Your task to perform on an android device: turn on priority inbox in the gmail app Image 0: 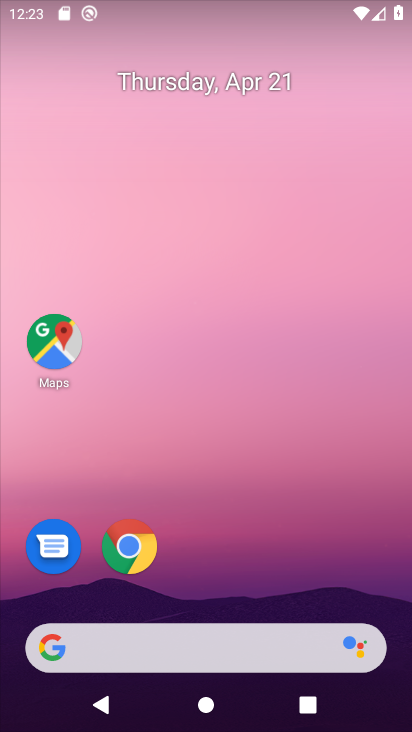
Step 0: drag from (195, 572) to (237, 184)
Your task to perform on an android device: turn on priority inbox in the gmail app Image 1: 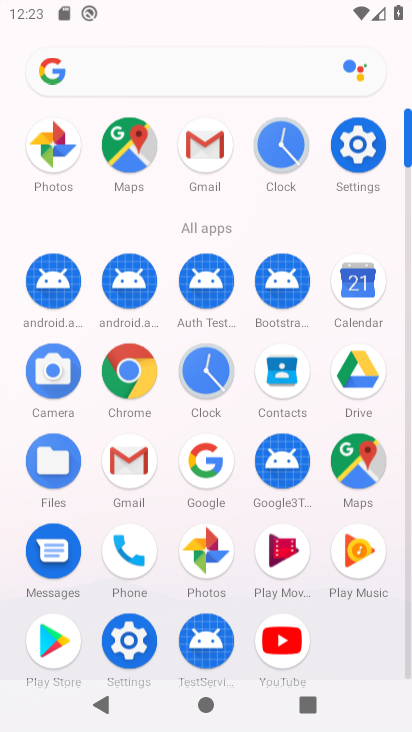
Step 1: drag from (277, 453) to (196, 161)
Your task to perform on an android device: turn on priority inbox in the gmail app Image 2: 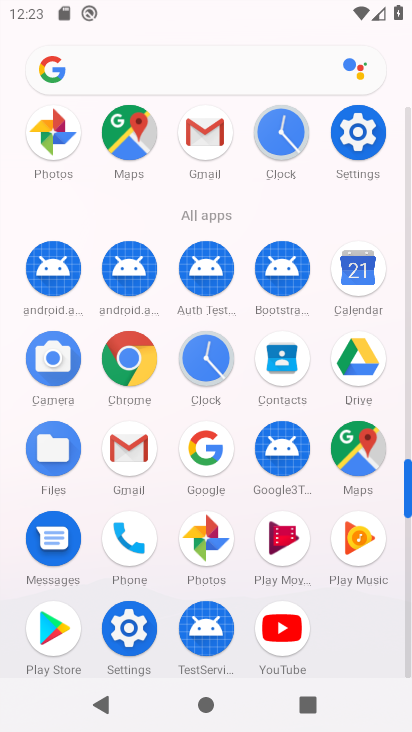
Step 2: click (202, 132)
Your task to perform on an android device: turn on priority inbox in the gmail app Image 3: 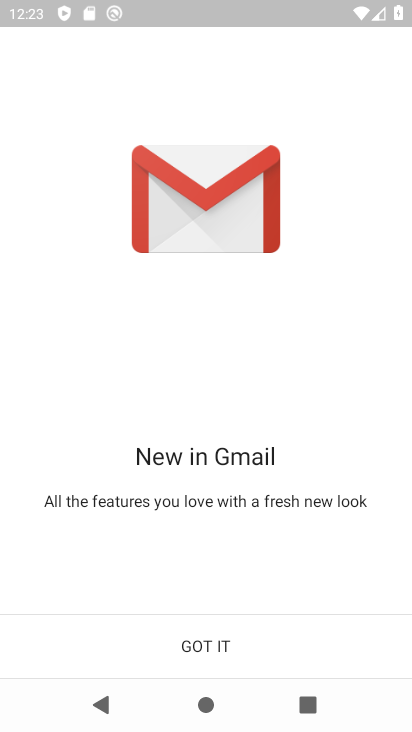
Step 3: click (192, 648)
Your task to perform on an android device: turn on priority inbox in the gmail app Image 4: 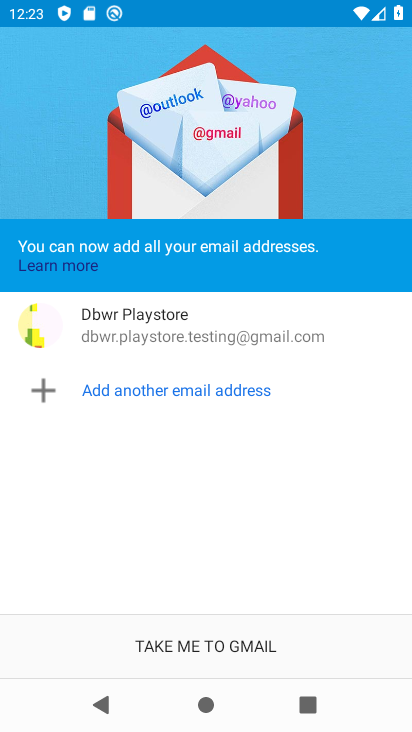
Step 4: click (227, 652)
Your task to perform on an android device: turn on priority inbox in the gmail app Image 5: 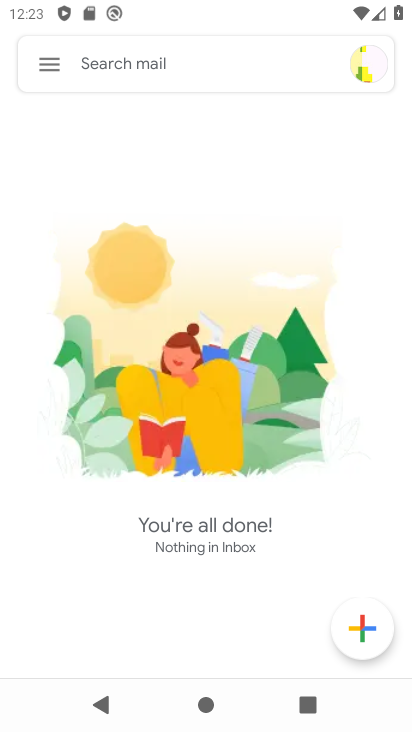
Step 5: click (50, 63)
Your task to perform on an android device: turn on priority inbox in the gmail app Image 6: 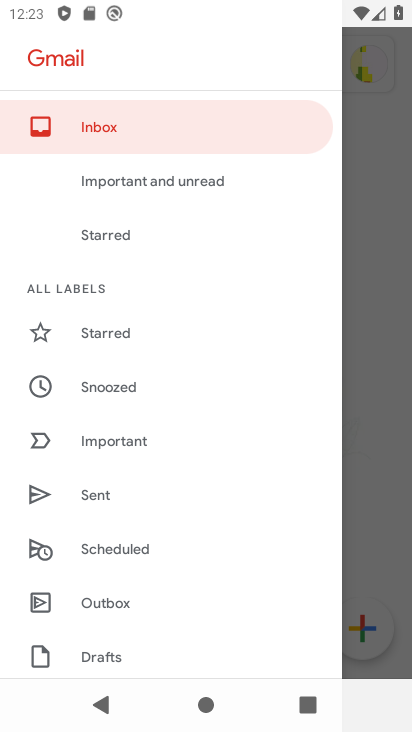
Step 6: drag from (231, 598) to (271, 198)
Your task to perform on an android device: turn on priority inbox in the gmail app Image 7: 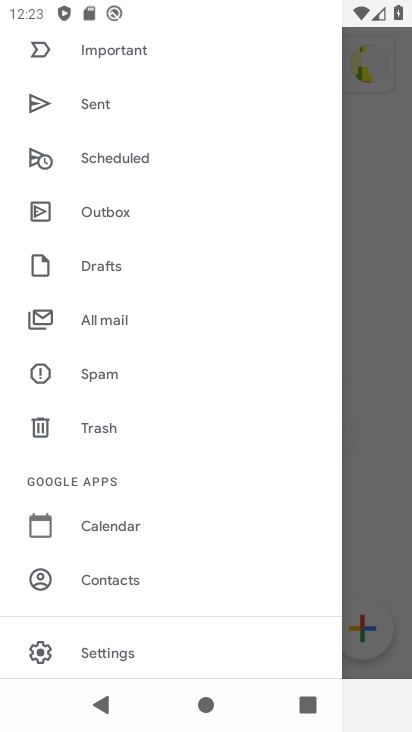
Step 7: drag from (222, 130) to (213, 662)
Your task to perform on an android device: turn on priority inbox in the gmail app Image 8: 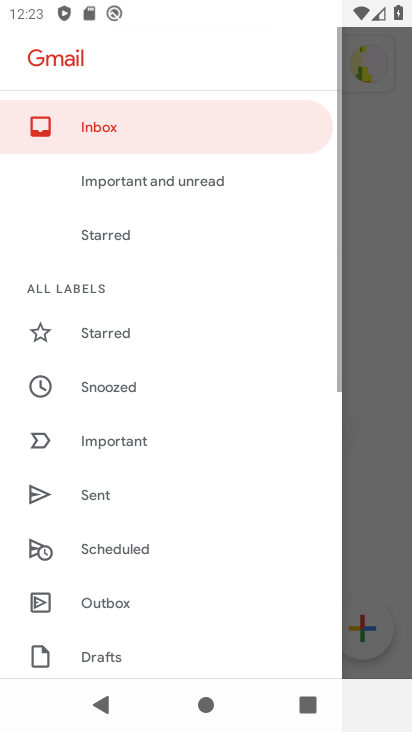
Step 8: drag from (218, 474) to (233, 125)
Your task to perform on an android device: turn on priority inbox in the gmail app Image 9: 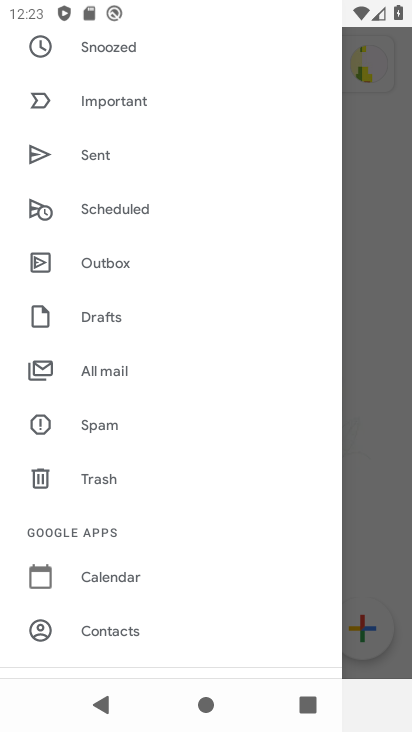
Step 9: drag from (167, 553) to (197, 299)
Your task to perform on an android device: turn on priority inbox in the gmail app Image 10: 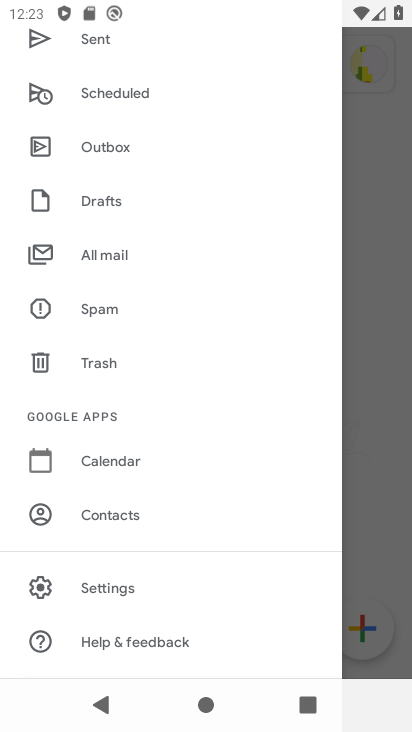
Step 10: click (154, 573)
Your task to perform on an android device: turn on priority inbox in the gmail app Image 11: 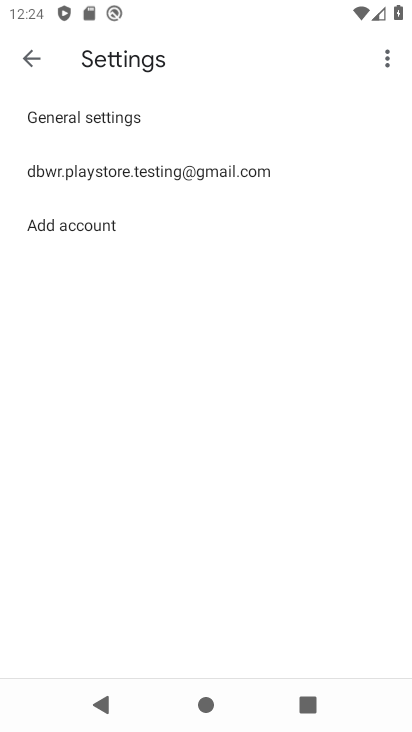
Step 11: click (122, 174)
Your task to perform on an android device: turn on priority inbox in the gmail app Image 12: 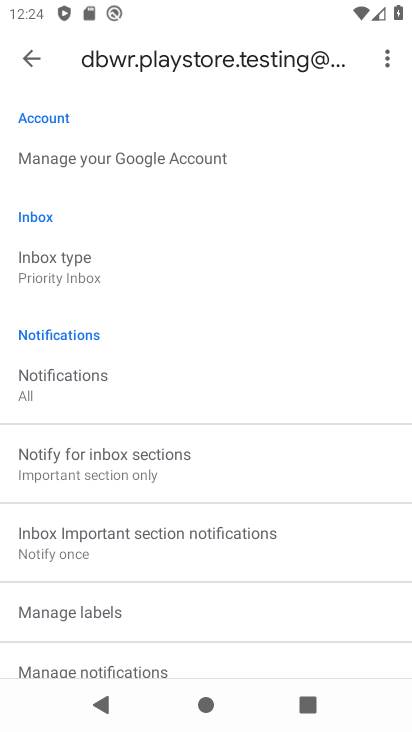
Step 12: task complete